Your task to perform on an android device: toggle sleep mode Image 0: 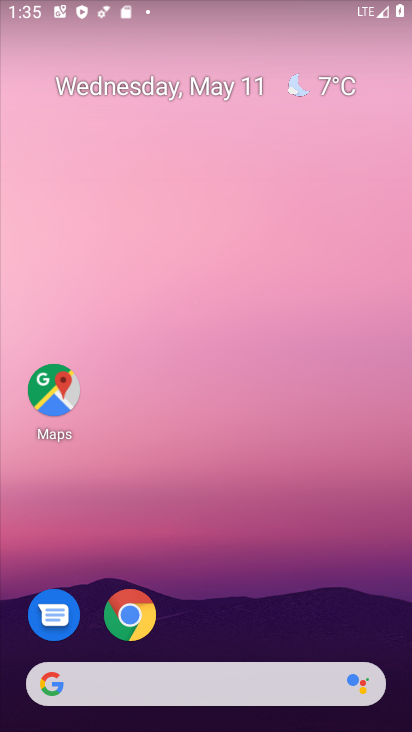
Step 0: drag from (269, 542) to (355, 127)
Your task to perform on an android device: toggle sleep mode Image 1: 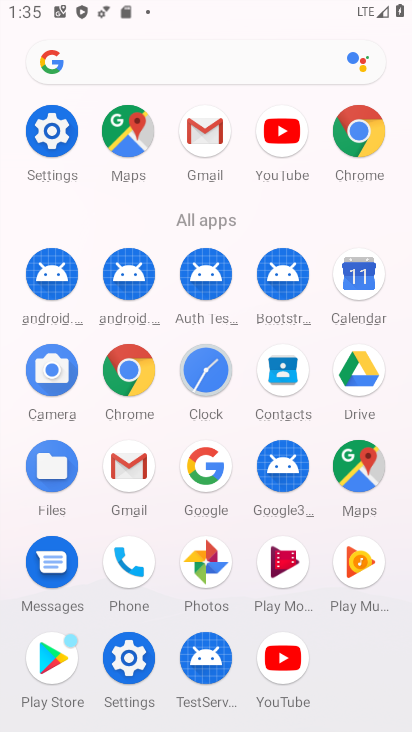
Step 1: click (67, 128)
Your task to perform on an android device: toggle sleep mode Image 2: 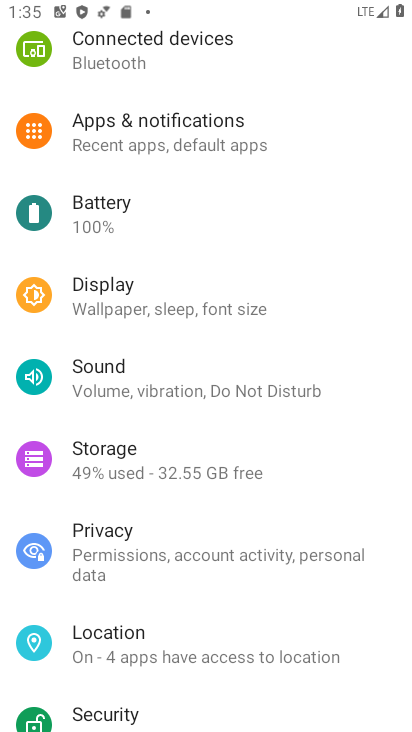
Step 2: drag from (267, 187) to (255, 522)
Your task to perform on an android device: toggle sleep mode Image 3: 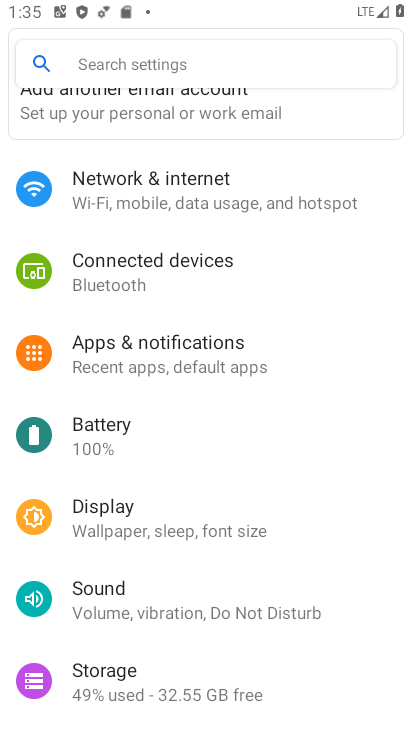
Step 3: click (169, 529)
Your task to perform on an android device: toggle sleep mode Image 4: 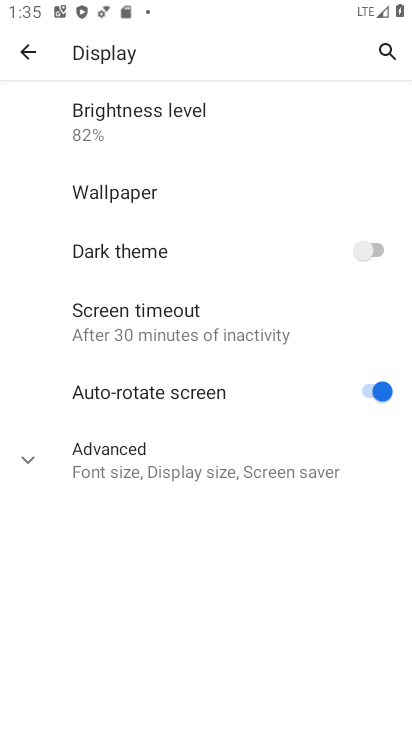
Step 4: click (152, 320)
Your task to perform on an android device: toggle sleep mode Image 5: 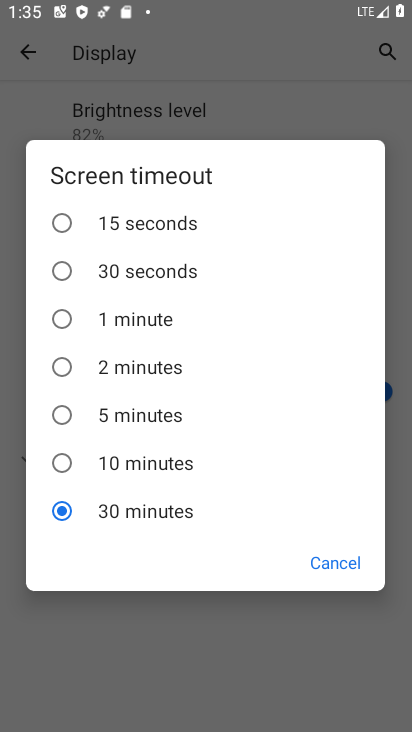
Step 5: click (129, 454)
Your task to perform on an android device: toggle sleep mode Image 6: 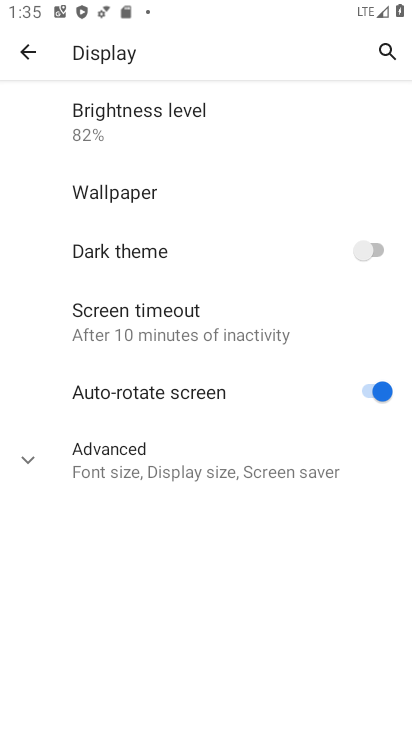
Step 6: task complete